Your task to perform on an android device: change notifications settings Image 0: 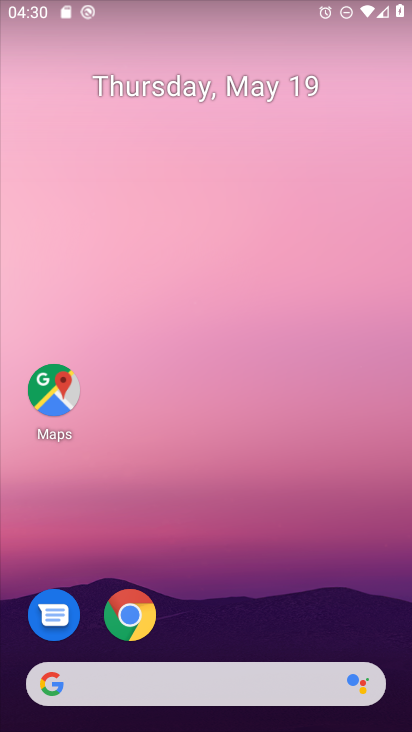
Step 0: drag from (311, 607) to (220, 162)
Your task to perform on an android device: change notifications settings Image 1: 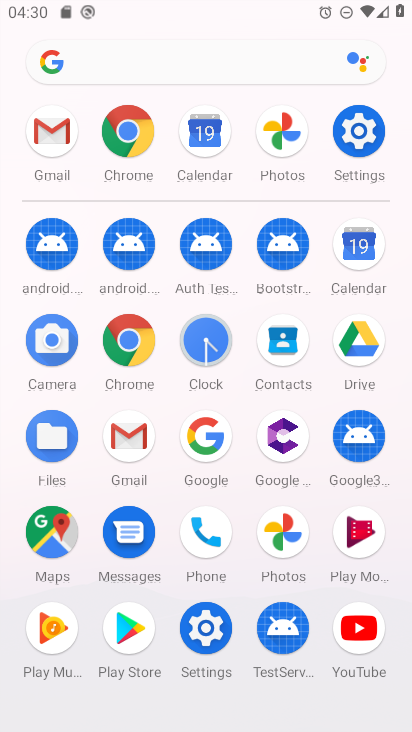
Step 1: click (64, 141)
Your task to perform on an android device: change notifications settings Image 2: 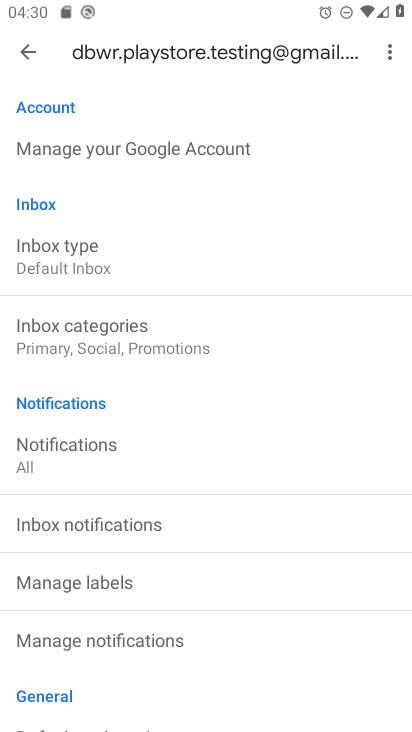
Step 2: press home button
Your task to perform on an android device: change notifications settings Image 3: 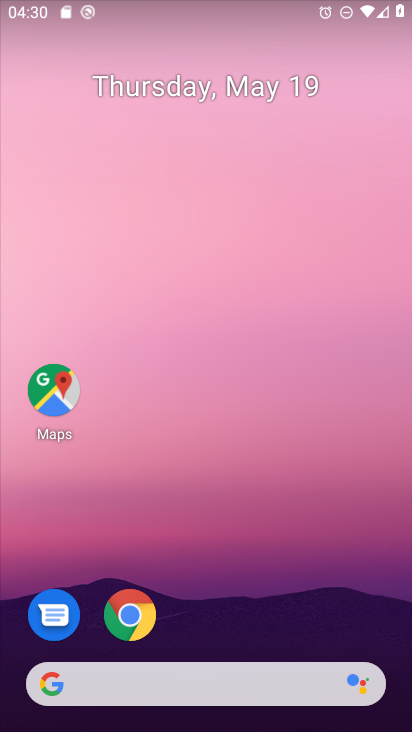
Step 3: drag from (259, 623) to (103, 26)
Your task to perform on an android device: change notifications settings Image 4: 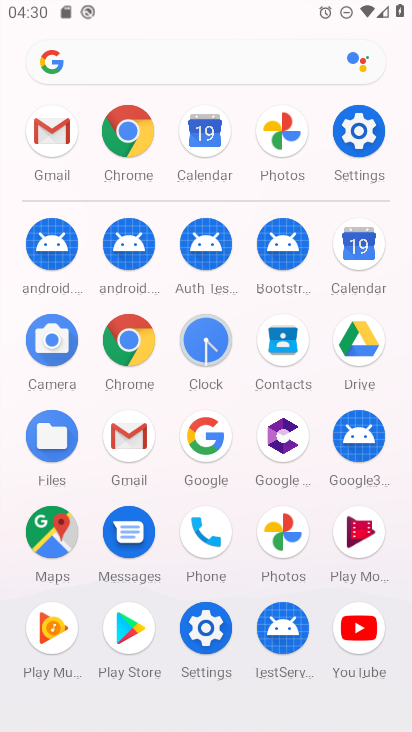
Step 4: click (351, 154)
Your task to perform on an android device: change notifications settings Image 5: 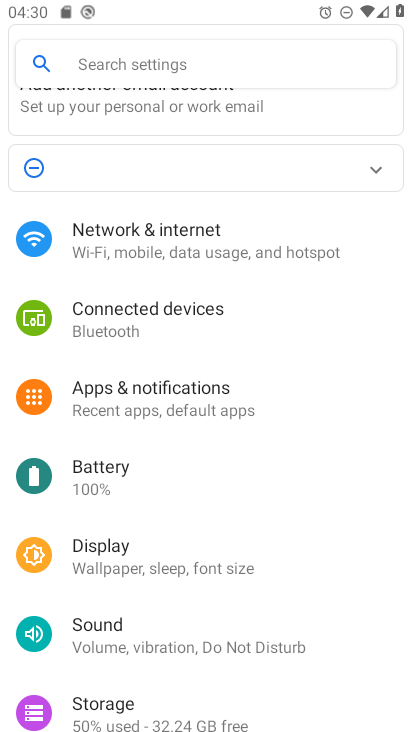
Step 5: click (250, 399)
Your task to perform on an android device: change notifications settings Image 6: 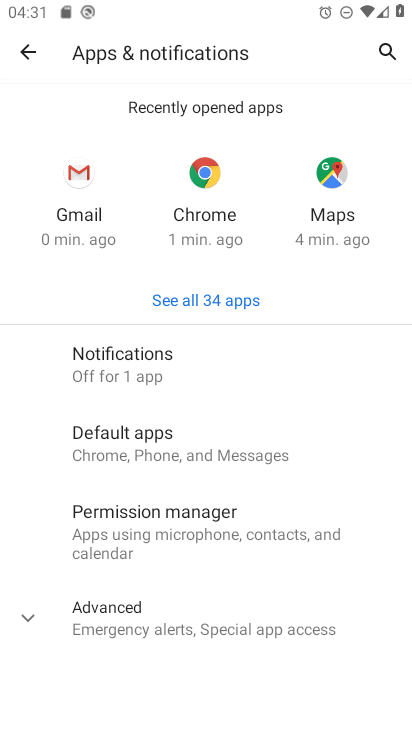
Step 6: click (203, 379)
Your task to perform on an android device: change notifications settings Image 7: 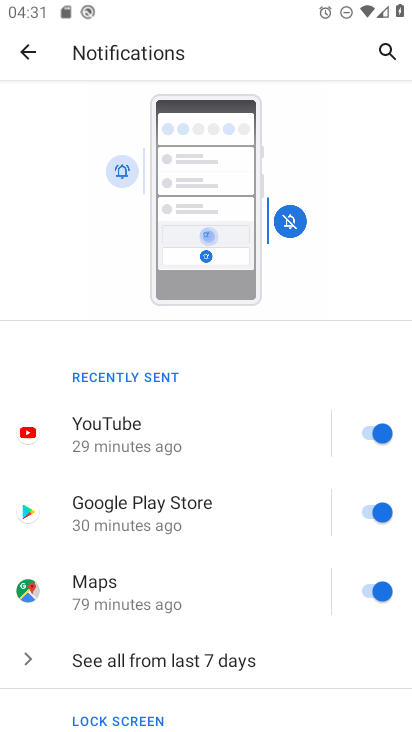
Step 7: drag from (299, 686) to (173, 37)
Your task to perform on an android device: change notifications settings Image 8: 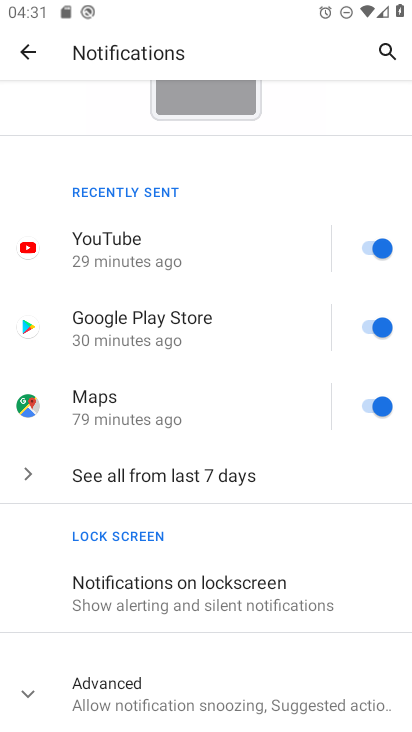
Step 8: click (318, 668)
Your task to perform on an android device: change notifications settings Image 9: 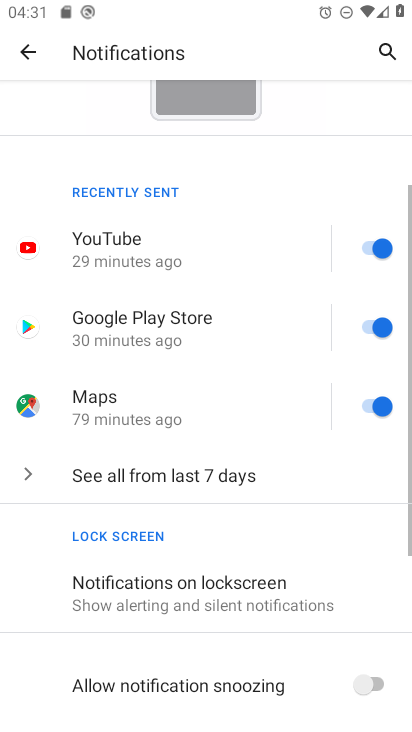
Step 9: drag from (316, 663) to (276, 302)
Your task to perform on an android device: change notifications settings Image 10: 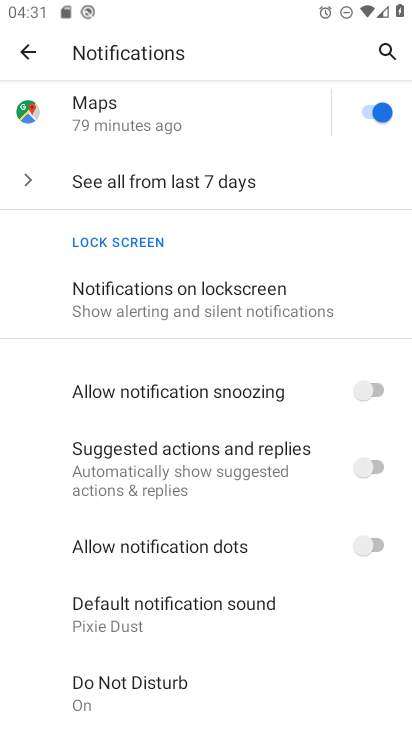
Step 10: click (370, 379)
Your task to perform on an android device: change notifications settings Image 11: 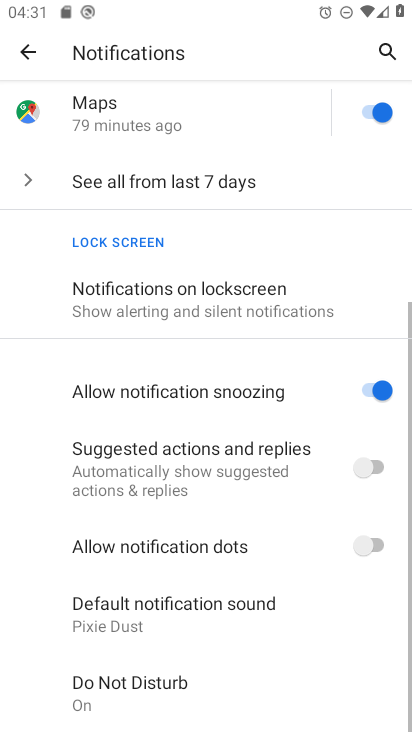
Step 11: click (383, 466)
Your task to perform on an android device: change notifications settings Image 12: 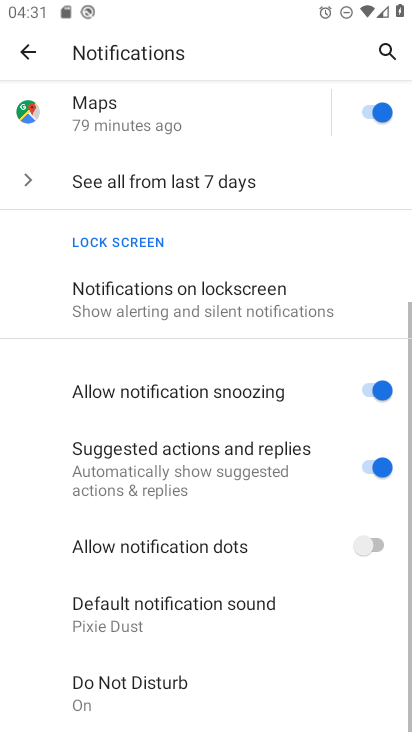
Step 12: click (382, 547)
Your task to perform on an android device: change notifications settings Image 13: 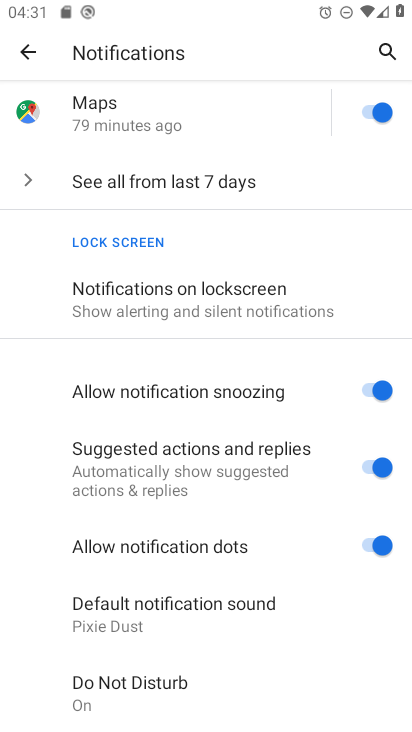
Step 13: task complete